Your task to perform on an android device: turn on priority inbox in the gmail app Image 0: 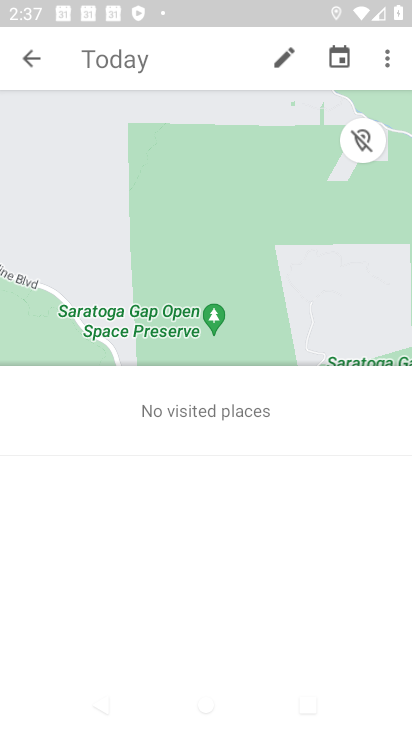
Step 0: press home button
Your task to perform on an android device: turn on priority inbox in the gmail app Image 1: 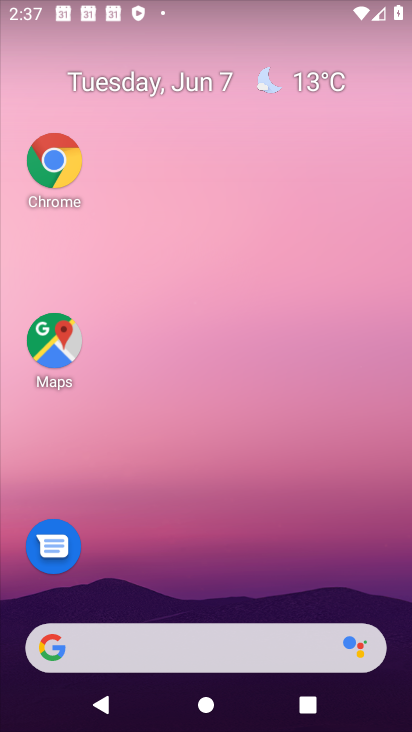
Step 1: drag from (213, 603) to (209, 106)
Your task to perform on an android device: turn on priority inbox in the gmail app Image 2: 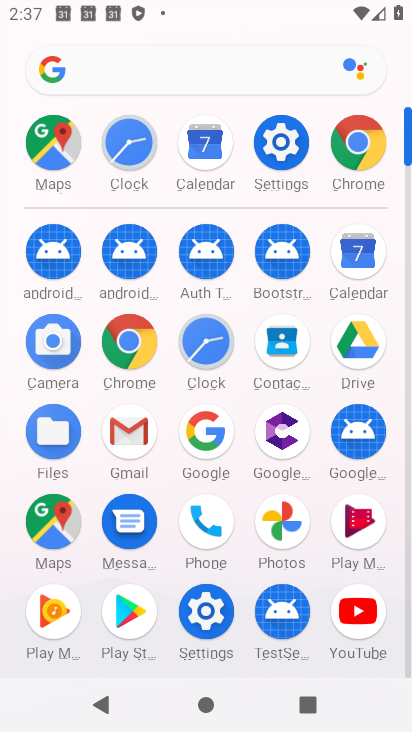
Step 2: click (117, 443)
Your task to perform on an android device: turn on priority inbox in the gmail app Image 3: 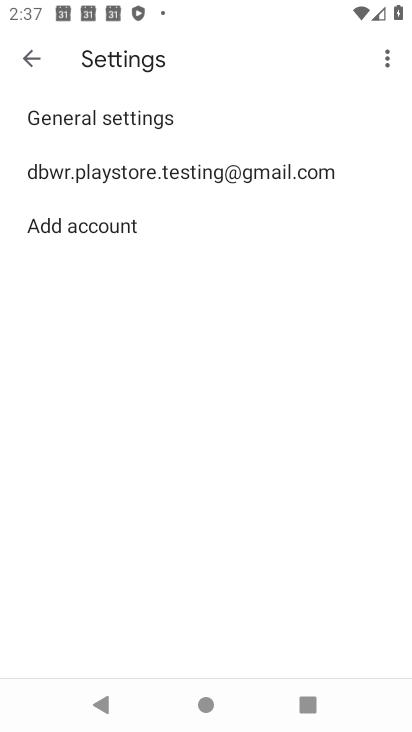
Step 3: click (175, 176)
Your task to perform on an android device: turn on priority inbox in the gmail app Image 4: 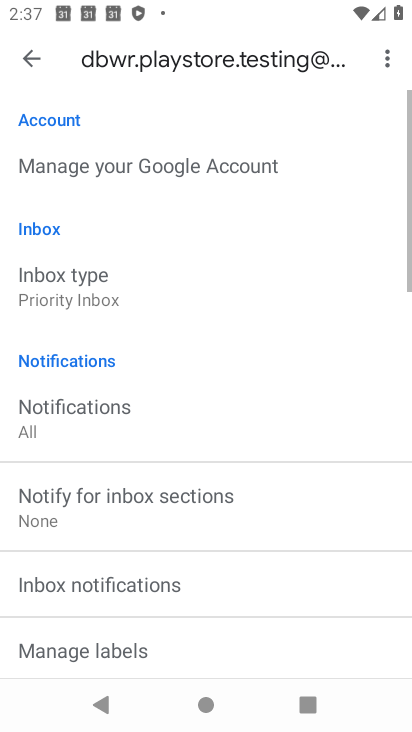
Step 4: click (111, 314)
Your task to perform on an android device: turn on priority inbox in the gmail app Image 5: 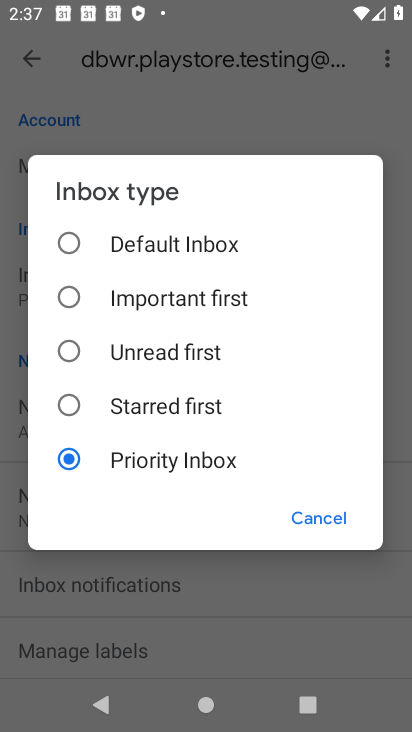
Step 5: task complete